Your task to perform on an android device: Go to Maps Image 0: 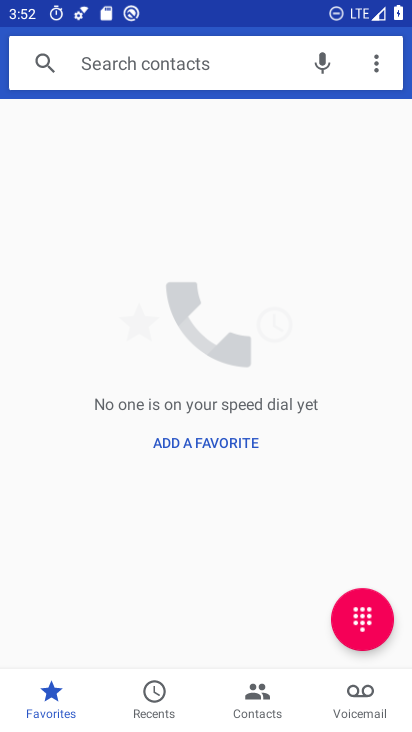
Step 0: press home button
Your task to perform on an android device: Go to Maps Image 1: 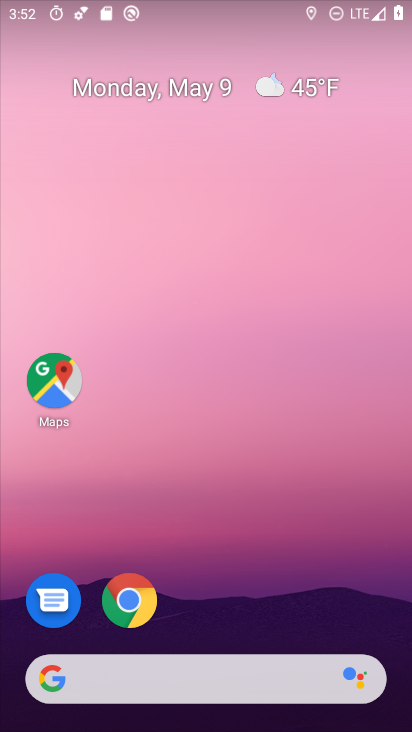
Step 1: click (58, 365)
Your task to perform on an android device: Go to Maps Image 2: 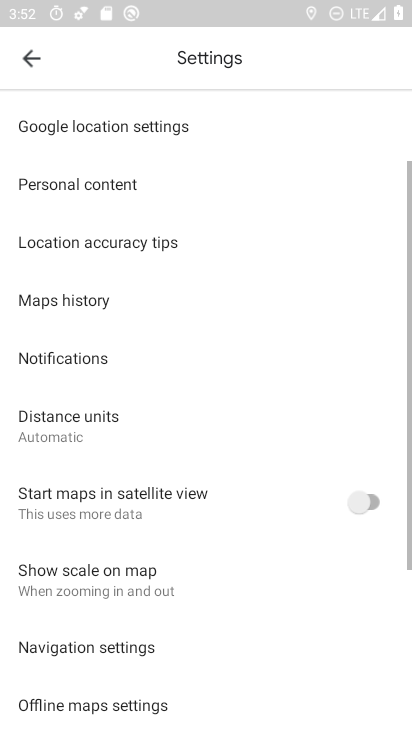
Step 2: click (36, 52)
Your task to perform on an android device: Go to Maps Image 3: 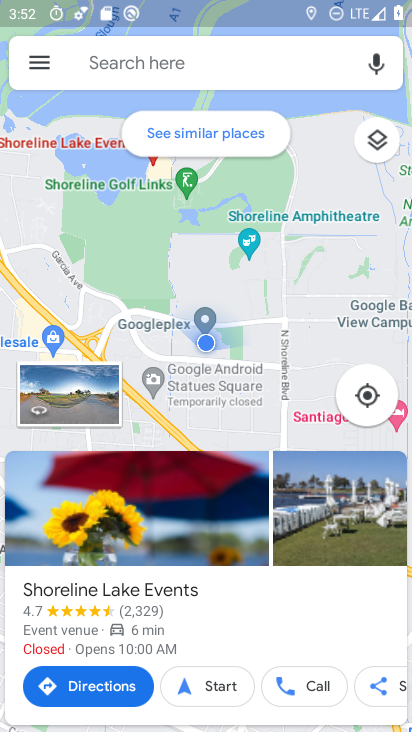
Step 3: task complete